Your task to perform on an android device: visit the assistant section in the google photos Image 0: 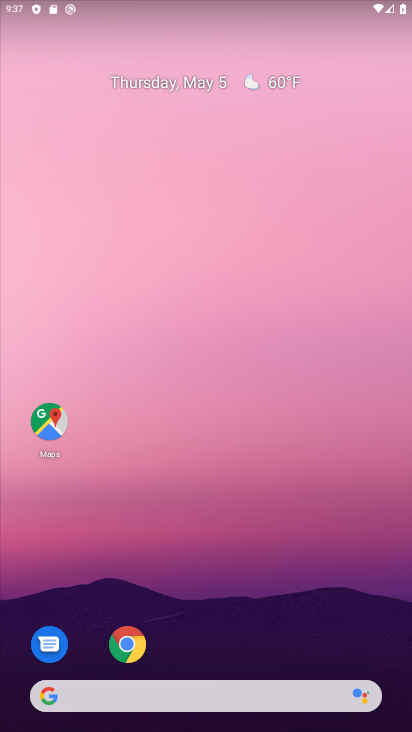
Step 0: drag from (365, 599) to (363, 142)
Your task to perform on an android device: visit the assistant section in the google photos Image 1: 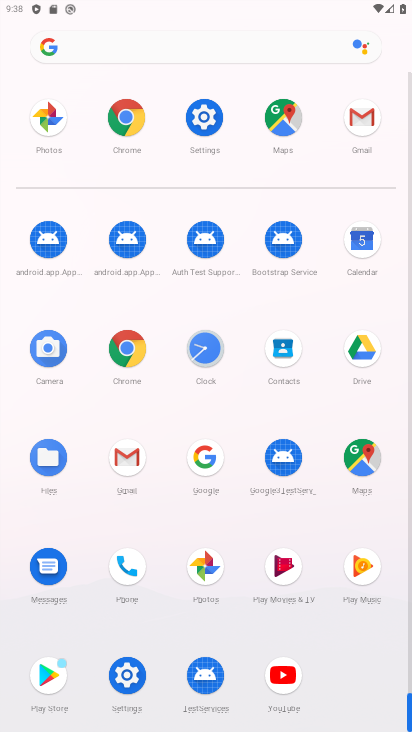
Step 1: click (207, 582)
Your task to perform on an android device: visit the assistant section in the google photos Image 2: 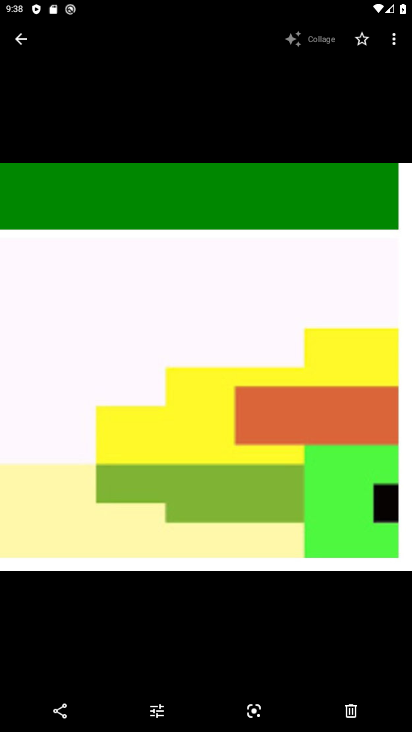
Step 2: click (13, 43)
Your task to perform on an android device: visit the assistant section in the google photos Image 3: 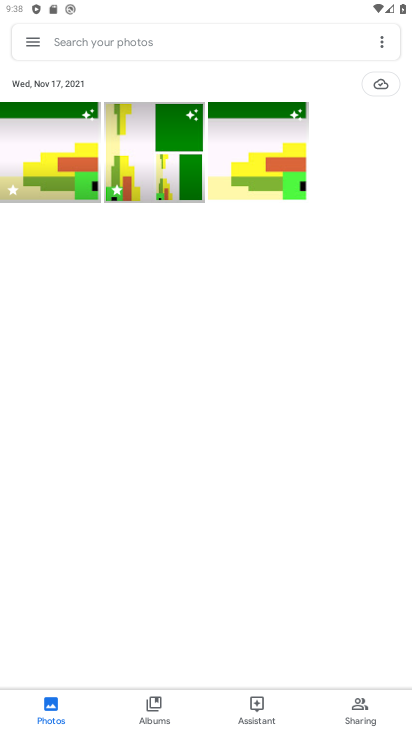
Step 3: click (240, 722)
Your task to perform on an android device: visit the assistant section in the google photos Image 4: 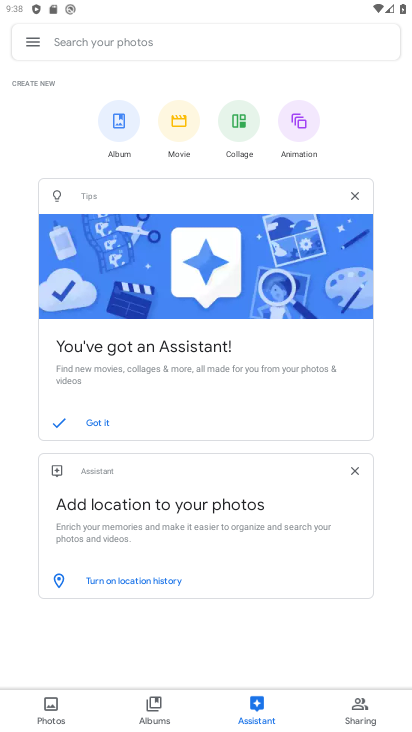
Step 4: task complete